Your task to perform on an android device: Turn on the flashlight Image 0: 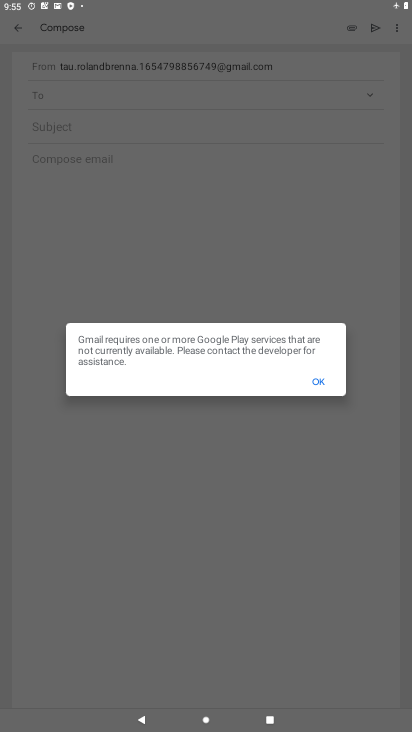
Step 0: press home button
Your task to perform on an android device: Turn on the flashlight Image 1: 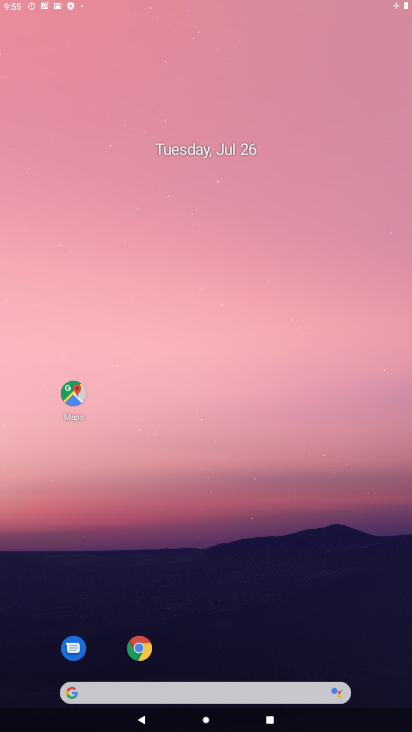
Step 1: drag from (175, 676) to (237, 91)
Your task to perform on an android device: Turn on the flashlight Image 2: 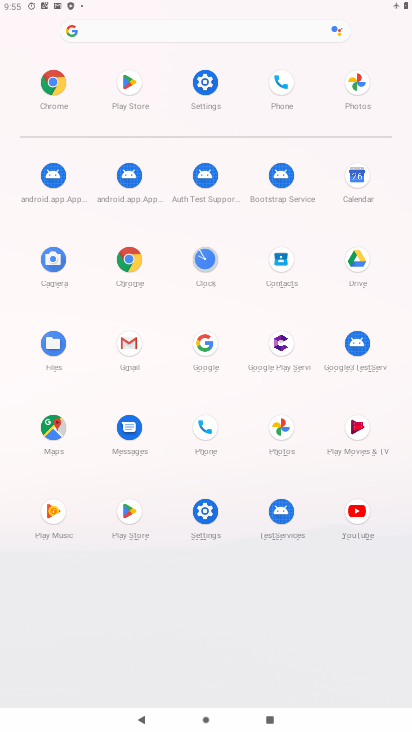
Step 2: click (200, 76)
Your task to perform on an android device: Turn on the flashlight Image 3: 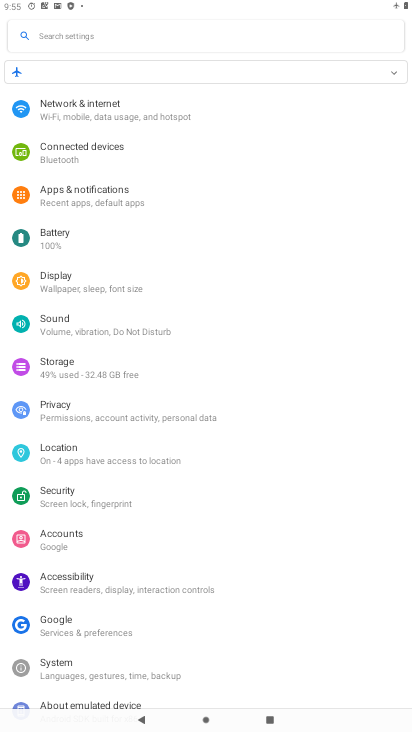
Step 3: click (81, 42)
Your task to perform on an android device: Turn on the flashlight Image 4: 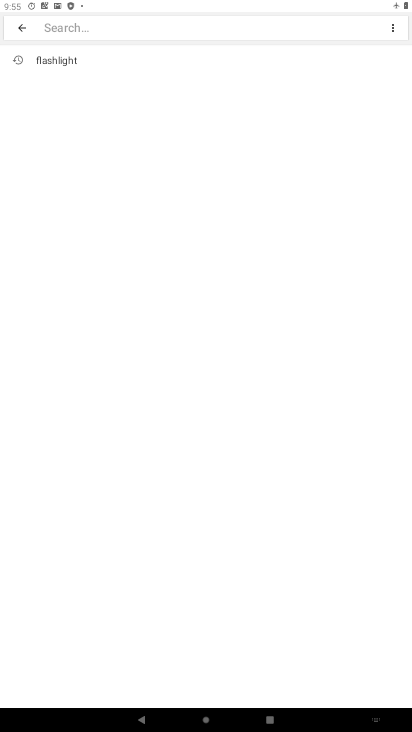
Step 4: type "flashlight"
Your task to perform on an android device: Turn on the flashlight Image 5: 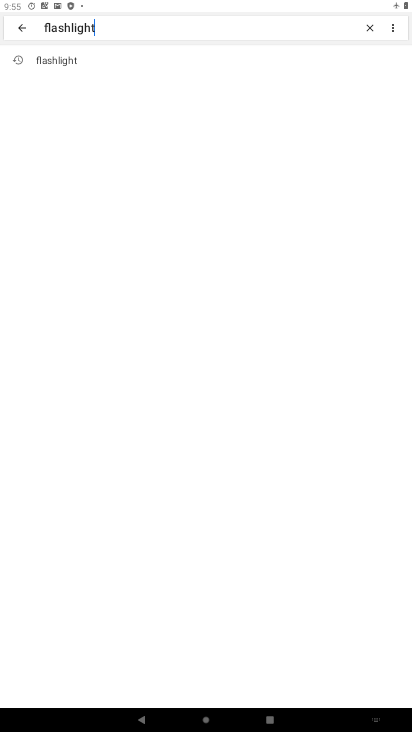
Step 5: click (85, 67)
Your task to perform on an android device: Turn on the flashlight Image 6: 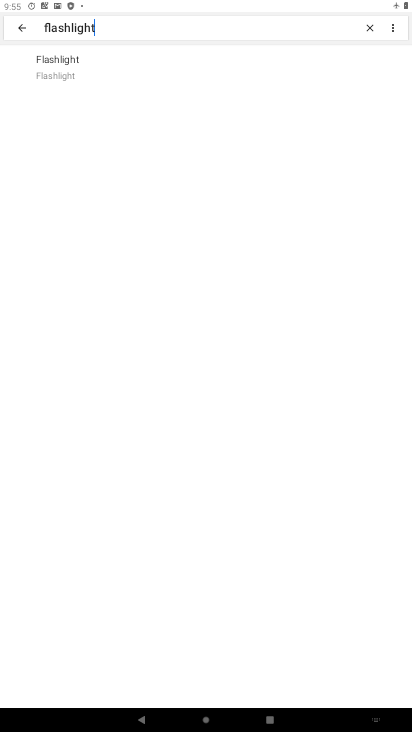
Step 6: drag from (203, 424) to (275, 232)
Your task to perform on an android device: Turn on the flashlight Image 7: 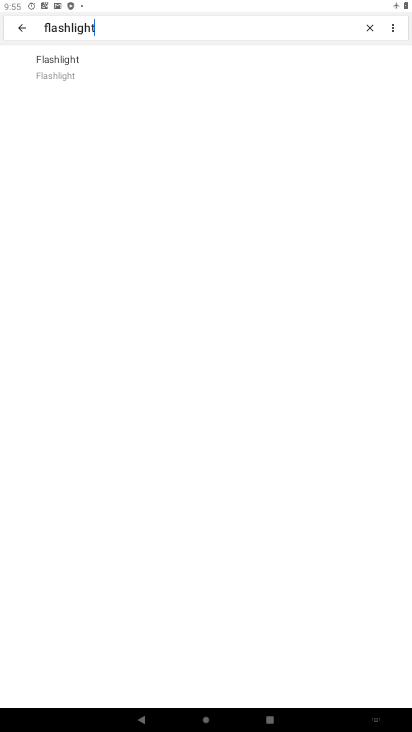
Step 7: click (76, 69)
Your task to perform on an android device: Turn on the flashlight Image 8: 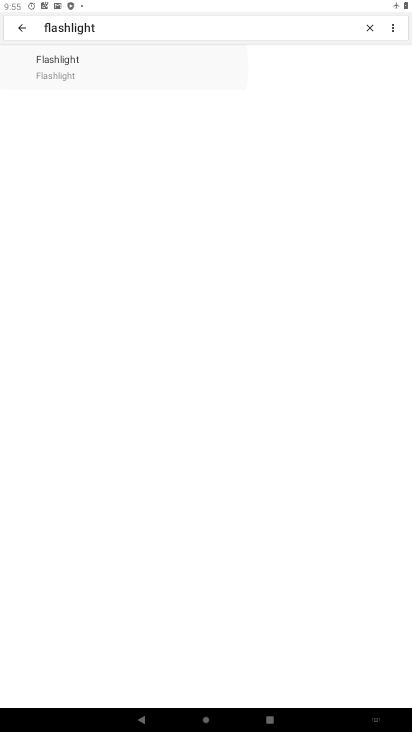
Step 8: click (75, 69)
Your task to perform on an android device: Turn on the flashlight Image 9: 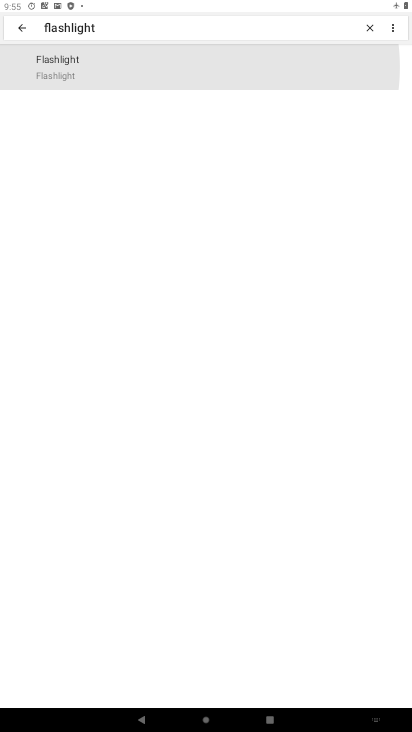
Step 9: drag from (223, 476) to (248, 242)
Your task to perform on an android device: Turn on the flashlight Image 10: 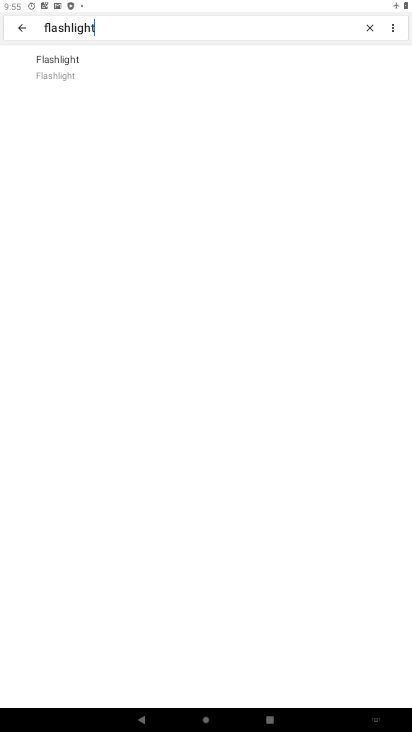
Step 10: click (199, 64)
Your task to perform on an android device: Turn on the flashlight Image 11: 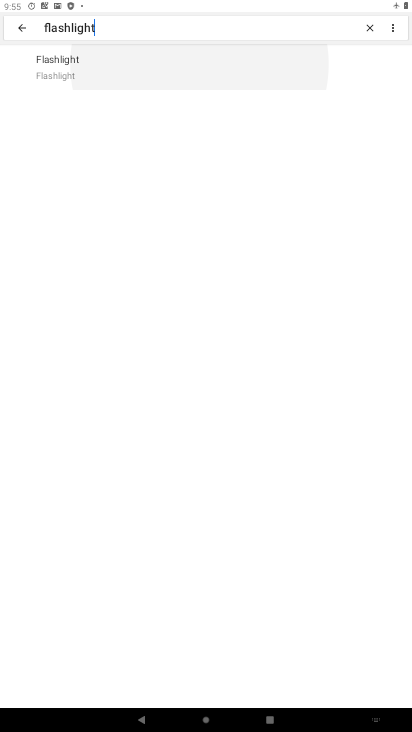
Step 11: click (179, 75)
Your task to perform on an android device: Turn on the flashlight Image 12: 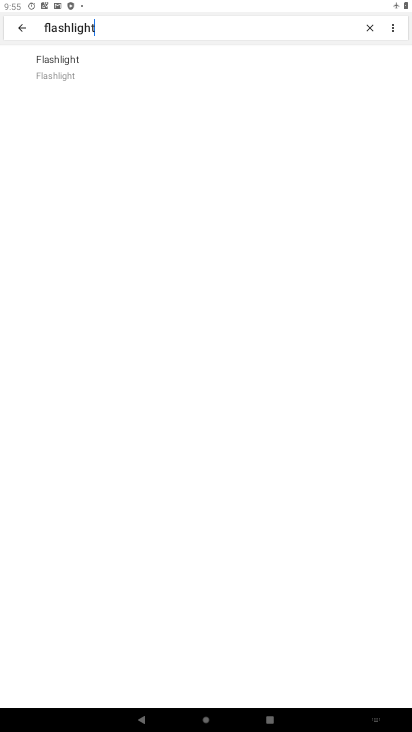
Step 12: task complete